Your task to perform on an android device: What is the recent news? Image 0: 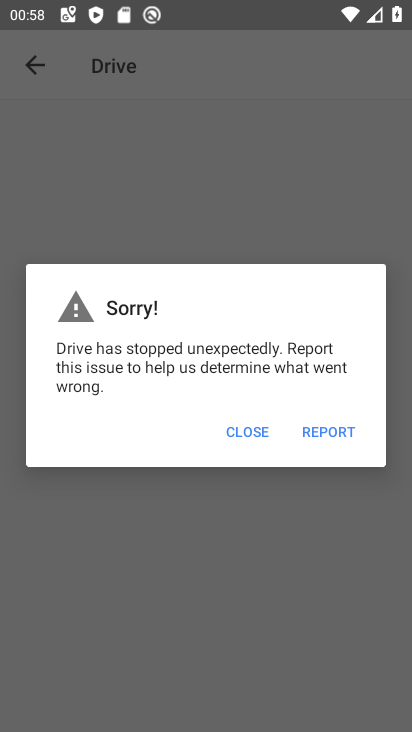
Step 0: press home button
Your task to perform on an android device: What is the recent news? Image 1: 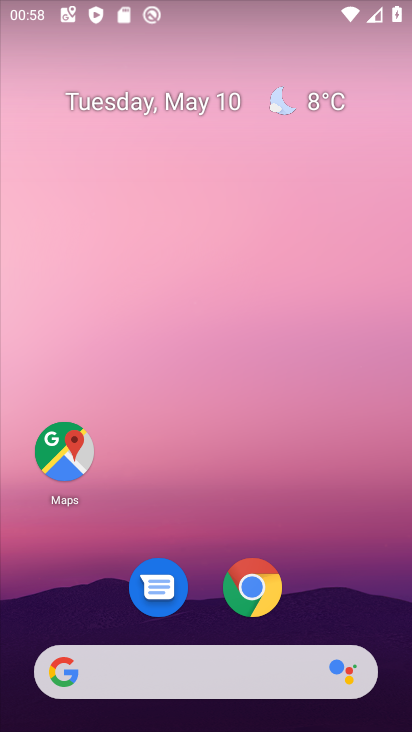
Step 1: task complete